Your task to perform on an android device: remove spam from my inbox in the gmail app Image 0: 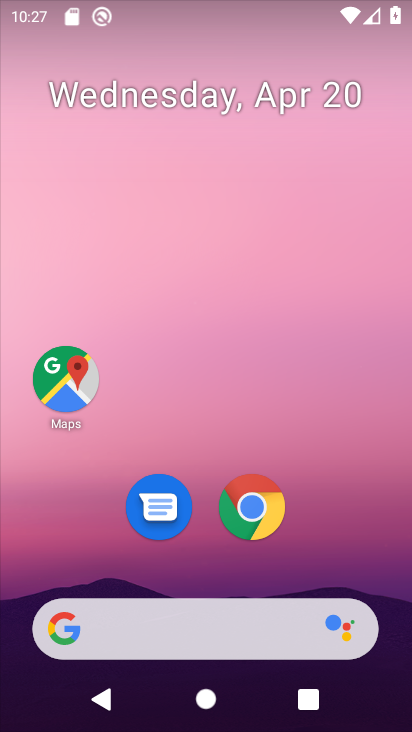
Step 0: drag from (140, 498) to (164, 41)
Your task to perform on an android device: remove spam from my inbox in the gmail app Image 1: 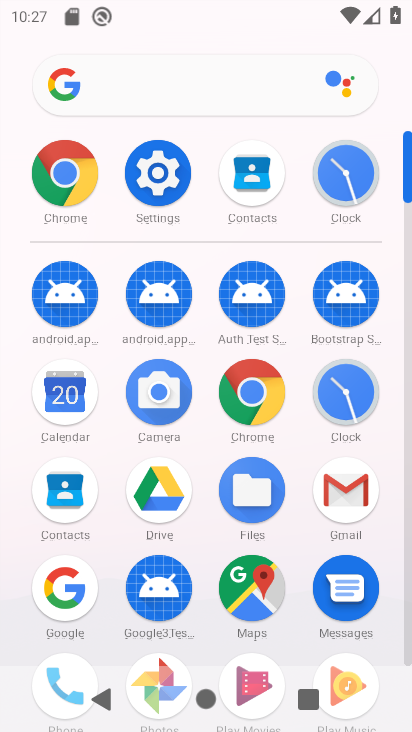
Step 1: click (336, 482)
Your task to perform on an android device: remove spam from my inbox in the gmail app Image 2: 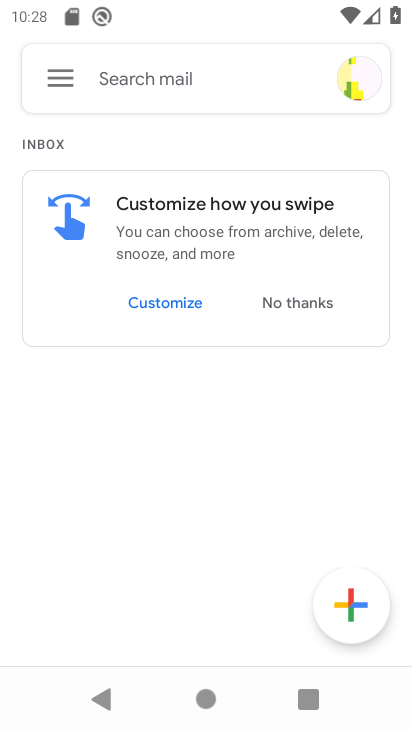
Step 2: click (60, 69)
Your task to perform on an android device: remove spam from my inbox in the gmail app Image 3: 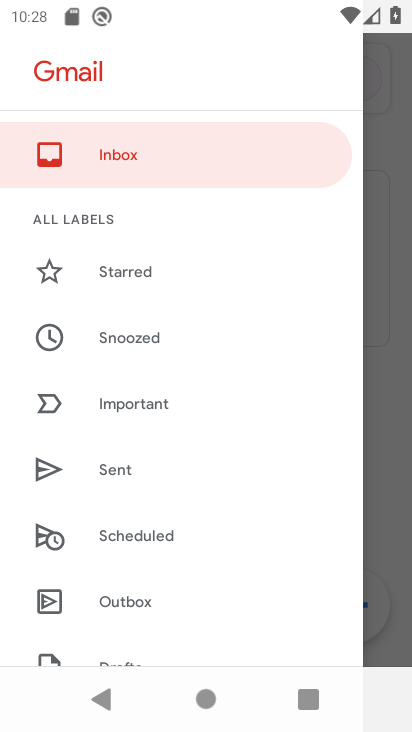
Step 3: drag from (119, 555) to (152, 217)
Your task to perform on an android device: remove spam from my inbox in the gmail app Image 4: 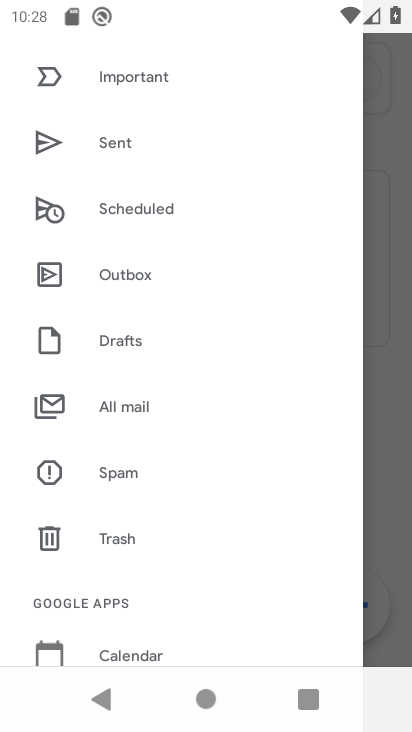
Step 4: click (138, 475)
Your task to perform on an android device: remove spam from my inbox in the gmail app Image 5: 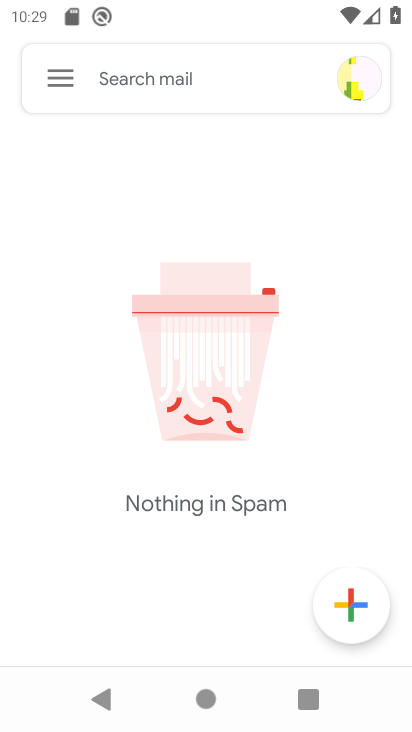
Step 5: task complete